Your task to perform on an android device: set default search engine in the chrome app Image 0: 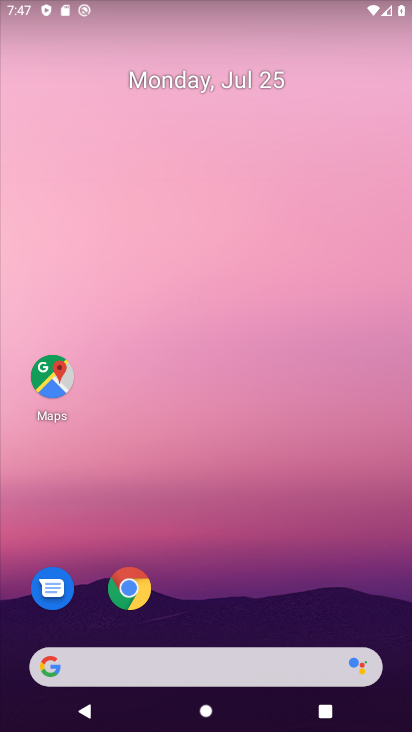
Step 0: click (121, 582)
Your task to perform on an android device: set default search engine in the chrome app Image 1: 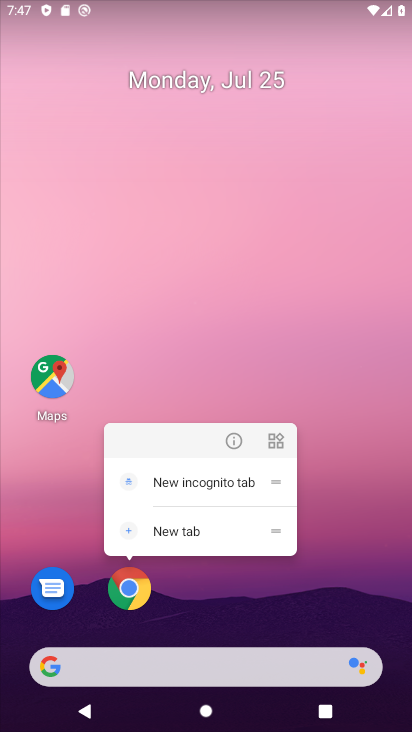
Step 1: click (125, 588)
Your task to perform on an android device: set default search engine in the chrome app Image 2: 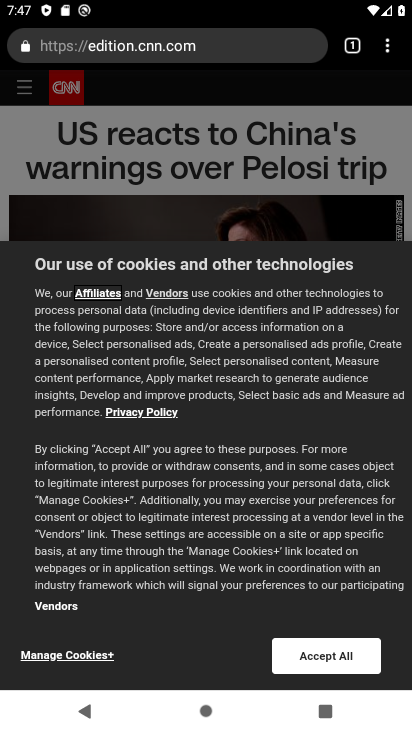
Step 2: click (388, 46)
Your task to perform on an android device: set default search engine in the chrome app Image 3: 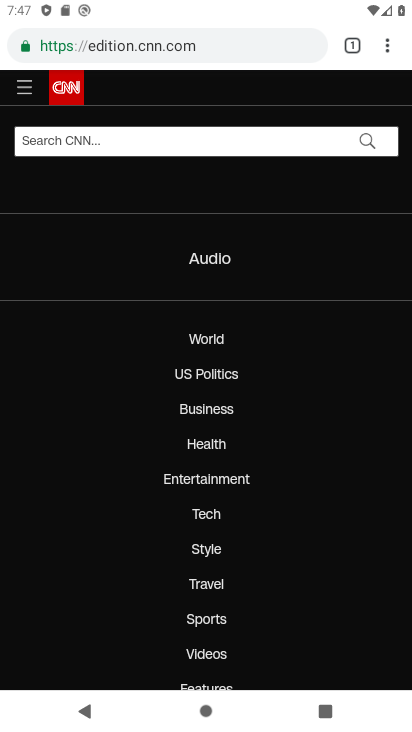
Step 3: click (386, 47)
Your task to perform on an android device: set default search engine in the chrome app Image 4: 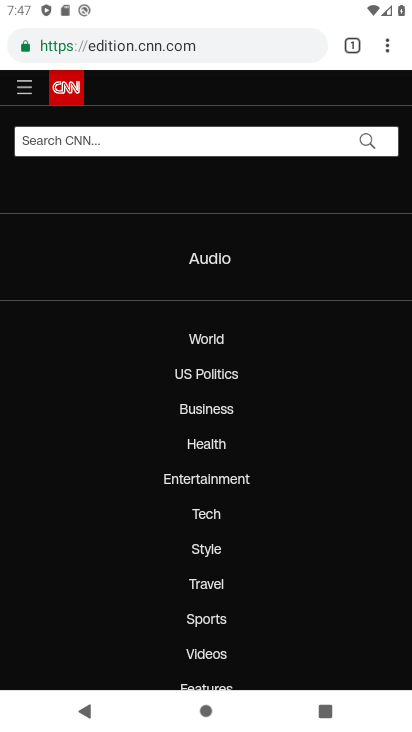
Step 4: click (380, 48)
Your task to perform on an android device: set default search engine in the chrome app Image 5: 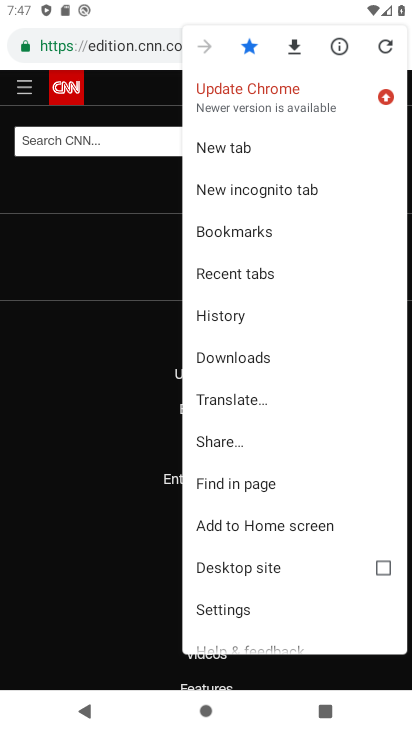
Step 5: click (209, 615)
Your task to perform on an android device: set default search engine in the chrome app Image 6: 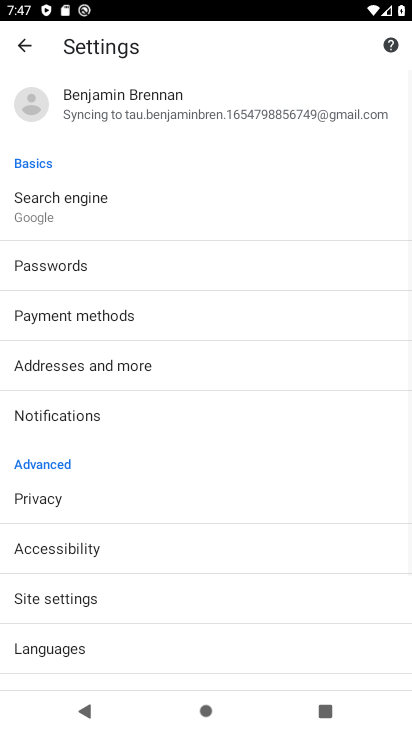
Step 6: click (19, 207)
Your task to perform on an android device: set default search engine in the chrome app Image 7: 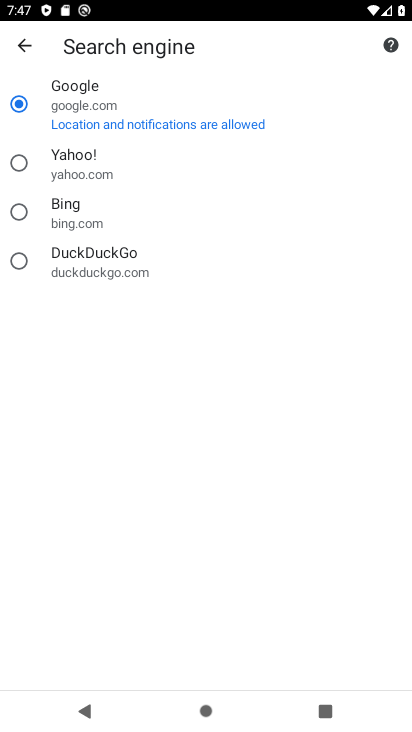
Step 7: task complete